Your task to perform on an android device: set the stopwatch Image 0: 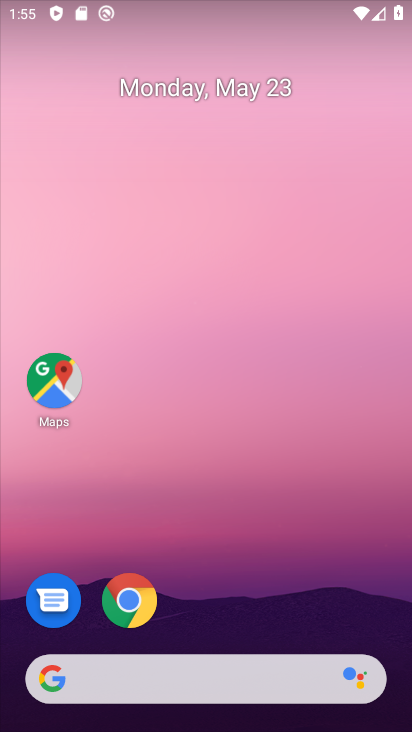
Step 0: drag from (286, 579) to (296, 173)
Your task to perform on an android device: set the stopwatch Image 1: 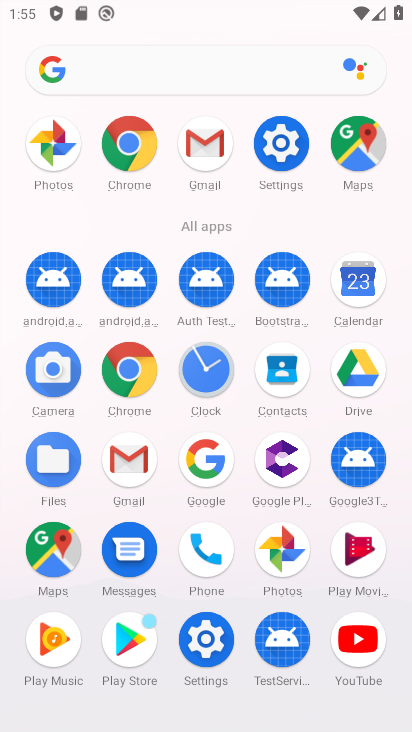
Step 1: click (199, 362)
Your task to perform on an android device: set the stopwatch Image 2: 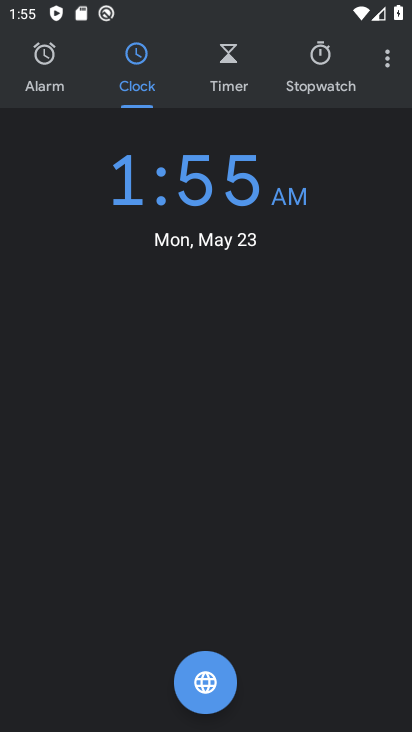
Step 2: click (297, 61)
Your task to perform on an android device: set the stopwatch Image 3: 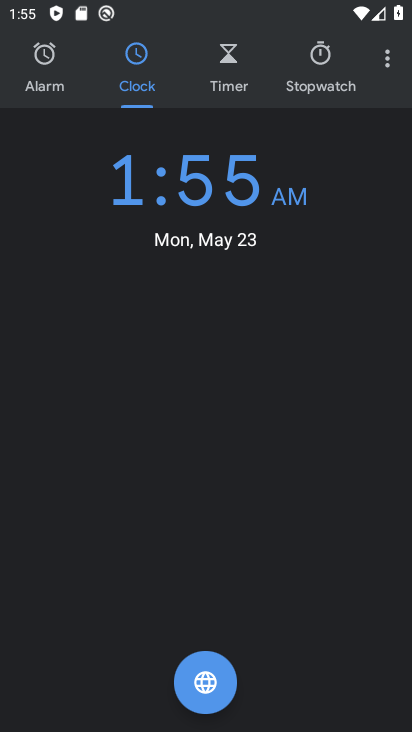
Step 3: click (306, 61)
Your task to perform on an android device: set the stopwatch Image 4: 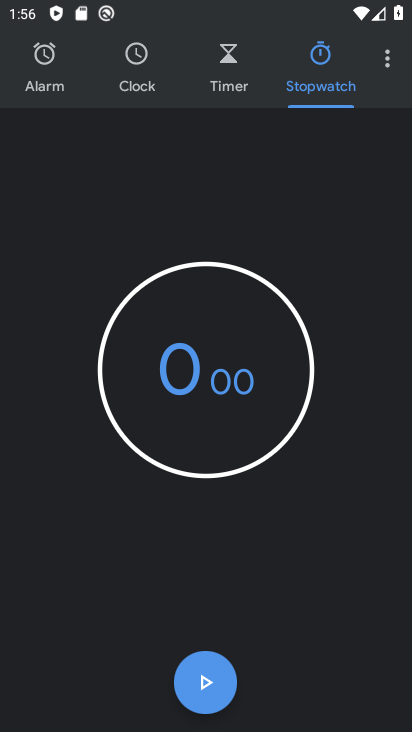
Step 4: task complete